Your task to perform on an android device: change keyboard looks Image 0: 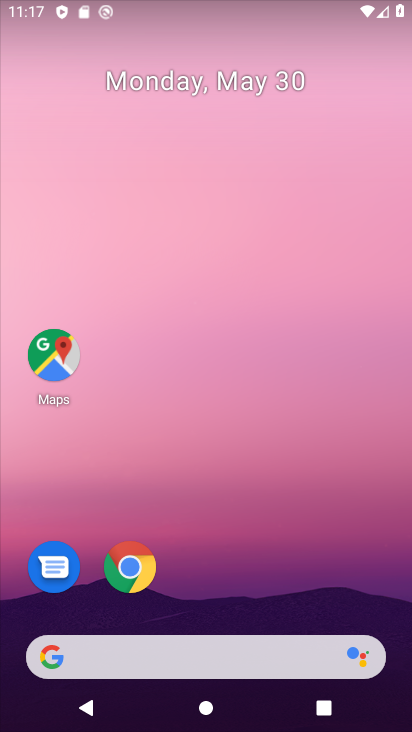
Step 0: drag from (367, 550) to (354, 101)
Your task to perform on an android device: change keyboard looks Image 1: 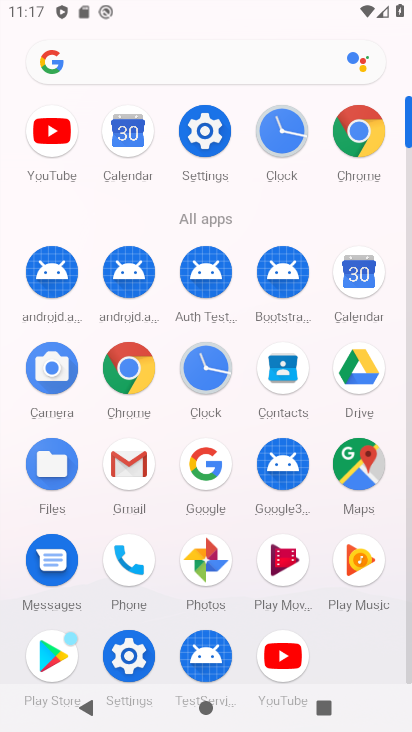
Step 1: click (121, 673)
Your task to perform on an android device: change keyboard looks Image 2: 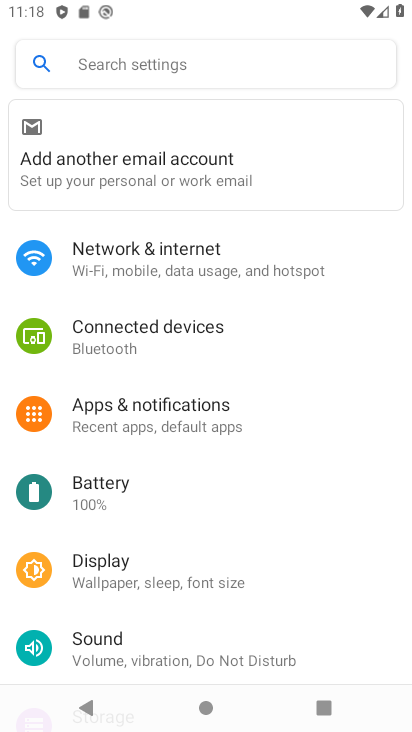
Step 2: drag from (297, 620) to (281, 212)
Your task to perform on an android device: change keyboard looks Image 3: 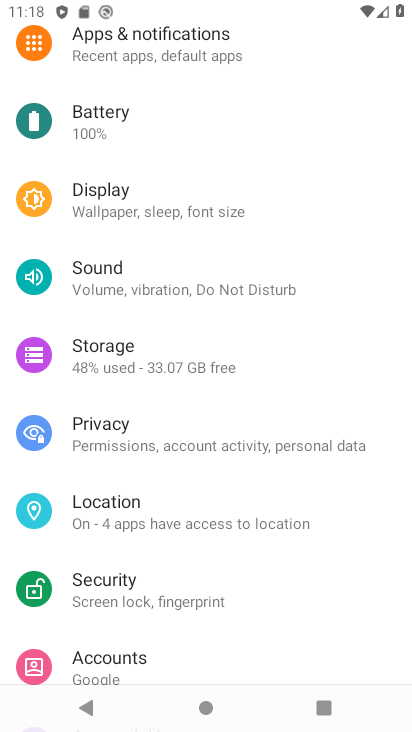
Step 3: drag from (302, 627) to (306, 253)
Your task to perform on an android device: change keyboard looks Image 4: 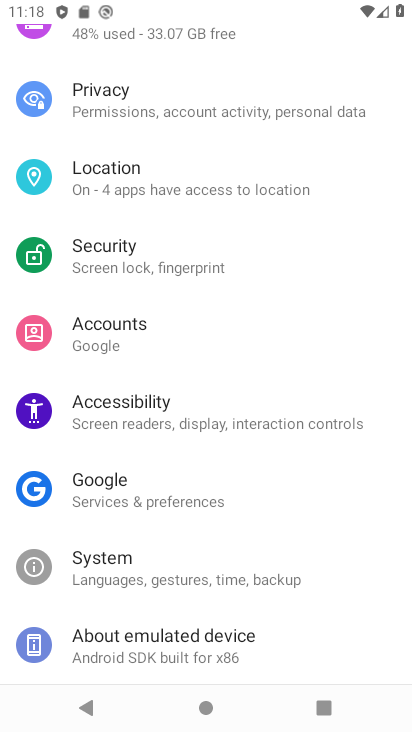
Step 4: drag from (320, 660) to (319, 372)
Your task to perform on an android device: change keyboard looks Image 5: 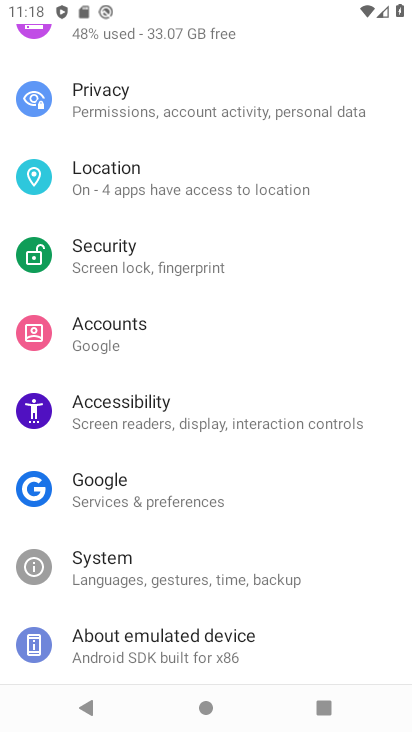
Step 5: click (239, 580)
Your task to perform on an android device: change keyboard looks Image 6: 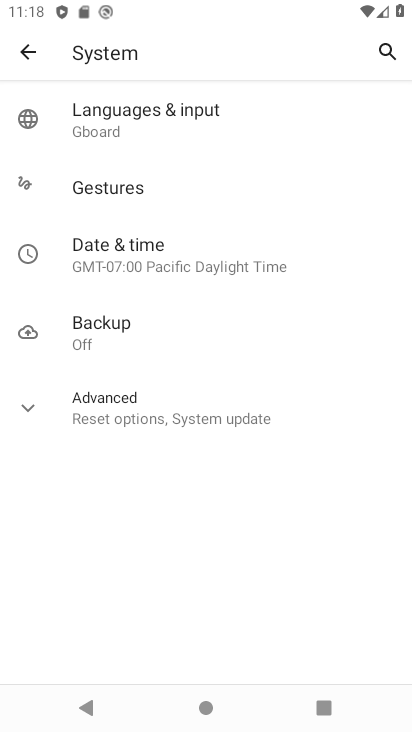
Step 6: click (166, 111)
Your task to perform on an android device: change keyboard looks Image 7: 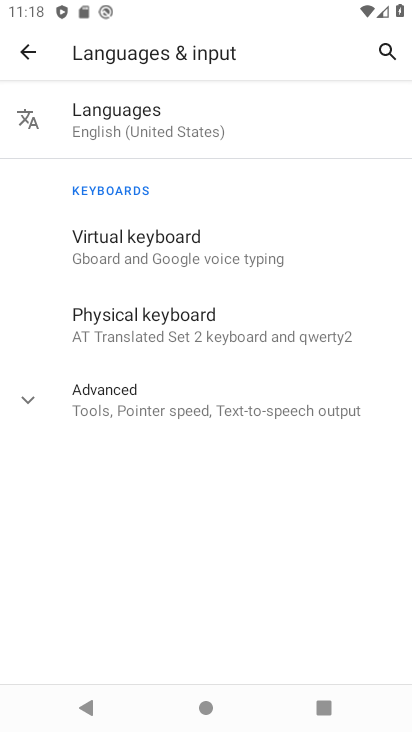
Step 7: click (238, 252)
Your task to perform on an android device: change keyboard looks Image 8: 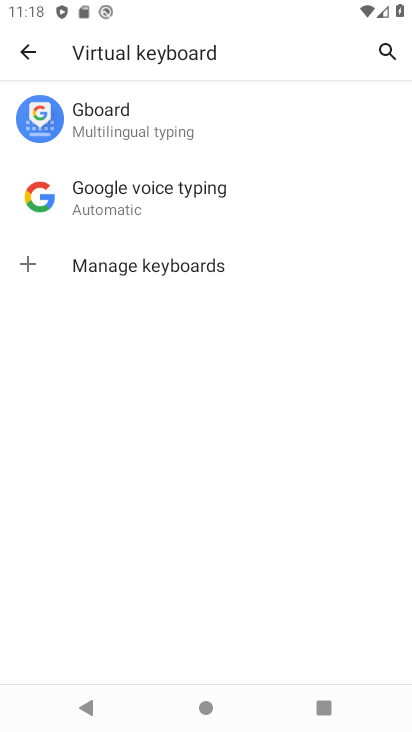
Step 8: click (192, 144)
Your task to perform on an android device: change keyboard looks Image 9: 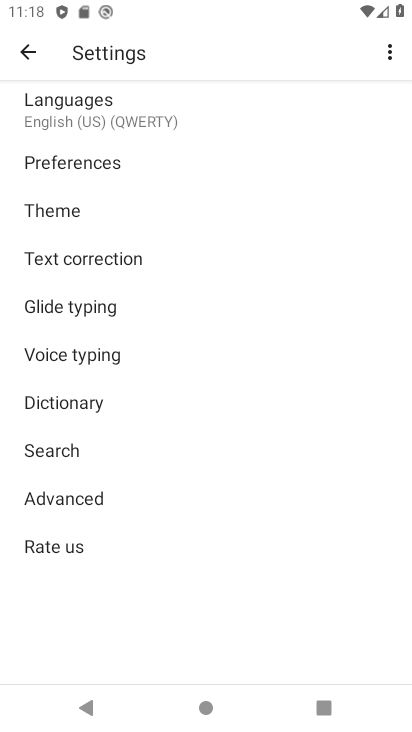
Step 9: click (101, 211)
Your task to perform on an android device: change keyboard looks Image 10: 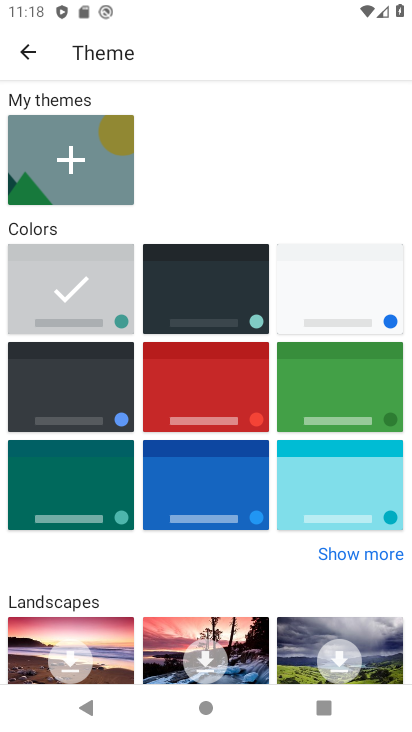
Step 10: click (347, 495)
Your task to perform on an android device: change keyboard looks Image 11: 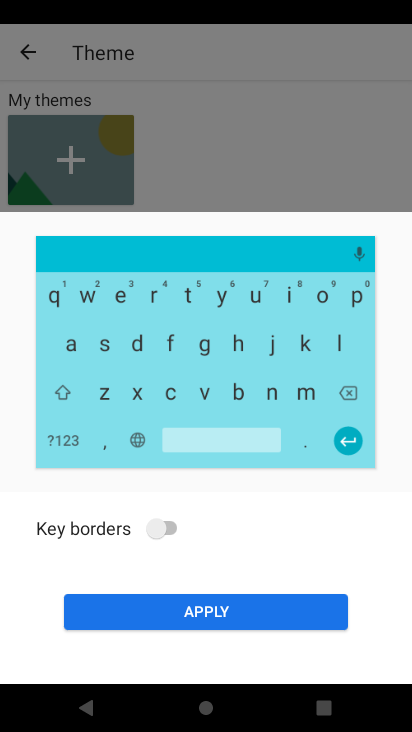
Step 11: click (312, 609)
Your task to perform on an android device: change keyboard looks Image 12: 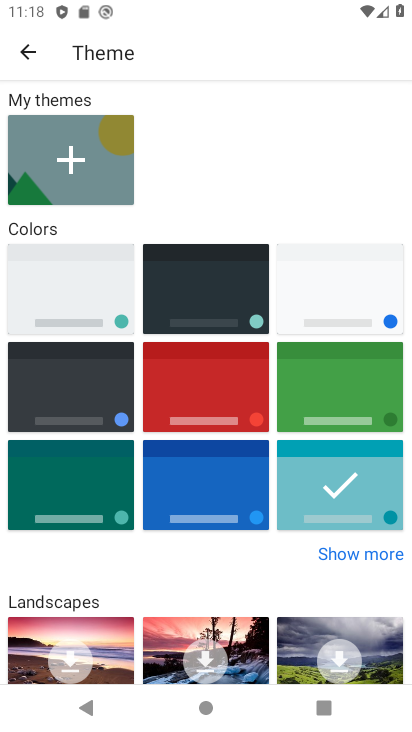
Step 12: task complete